Your task to perform on an android device: turn on data saver in the chrome app Image 0: 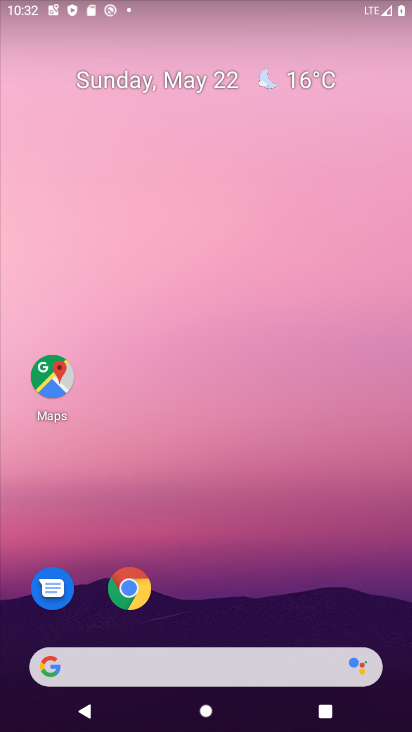
Step 0: click (141, 579)
Your task to perform on an android device: turn on data saver in the chrome app Image 1: 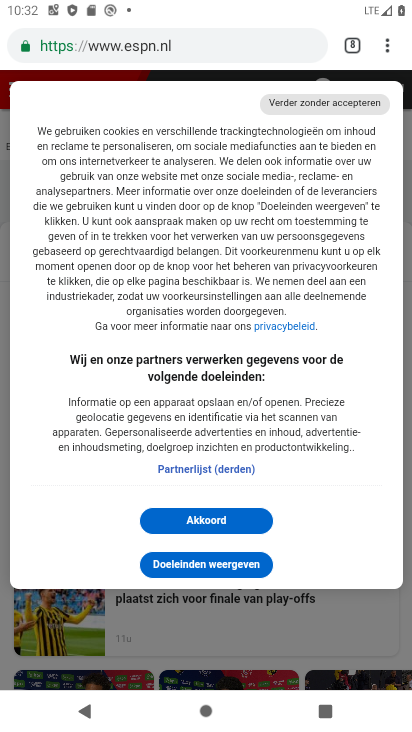
Step 1: click (382, 38)
Your task to perform on an android device: turn on data saver in the chrome app Image 2: 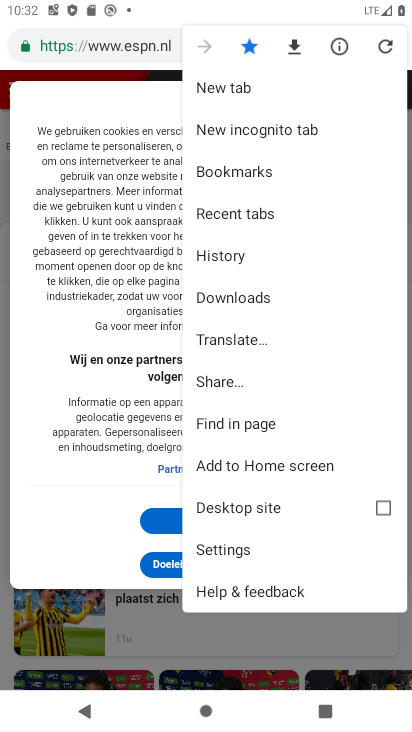
Step 2: click (388, 42)
Your task to perform on an android device: turn on data saver in the chrome app Image 3: 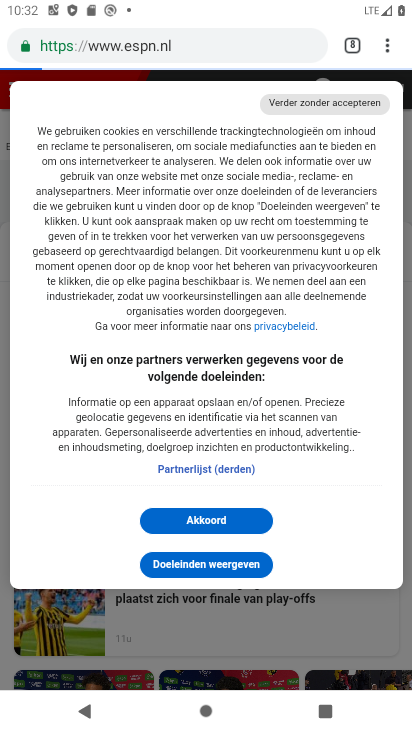
Step 3: click (388, 42)
Your task to perform on an android device: turn on data saver in the chrome app Image 4: 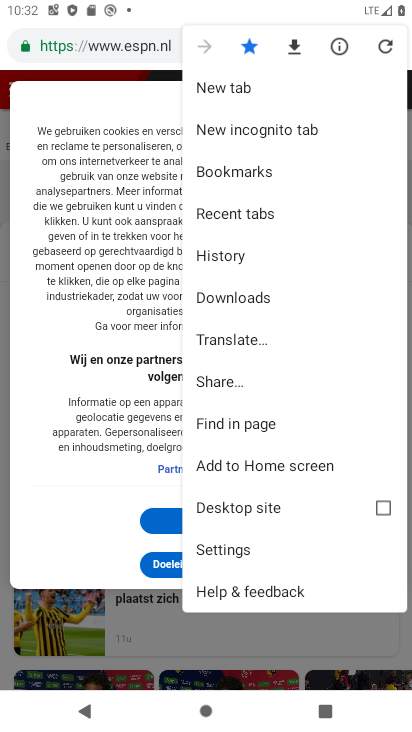
Step 4: click (250, 559)
Your task to perform on an android device: turn on data saver in the chrome app Image 5: 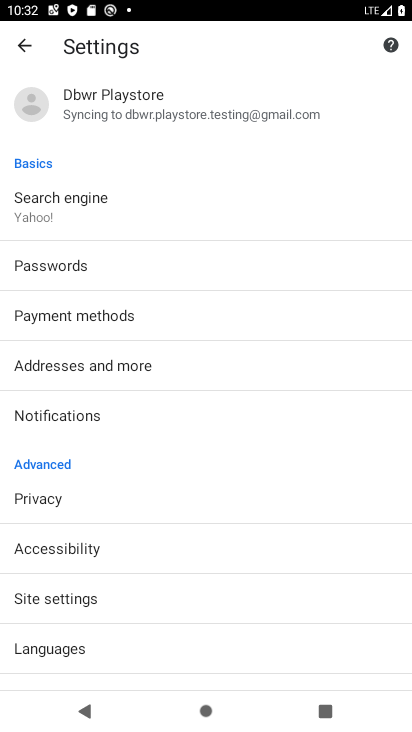
Step 5: click (88, 587)
Your task to perform on an android device: turn on data saver in the chrome app Image 6: 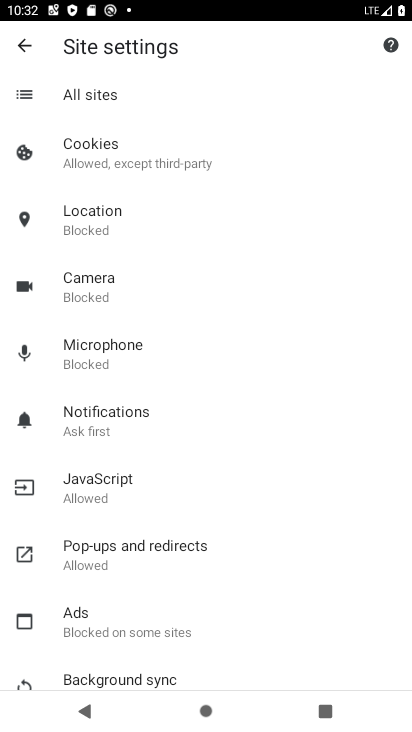
Step 6: click (26, 38)
Your task to perform on an android device: turn on data saver in the chrome app Image 7: 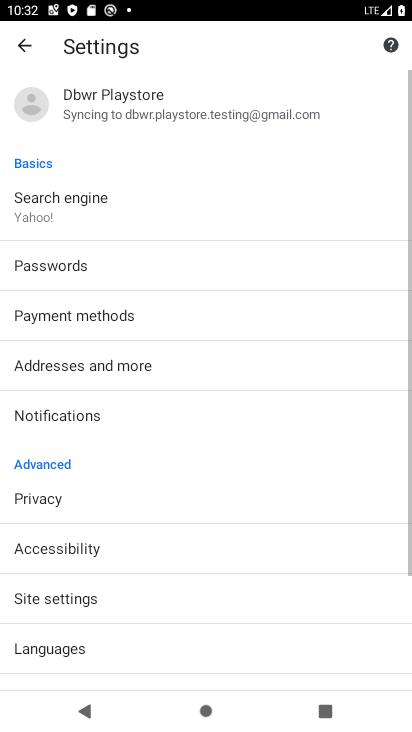
Step 7: drag from (147, 563) to (230, 268)
Your task to perform on an android device: turn on data saver in the chrome app Image 8: 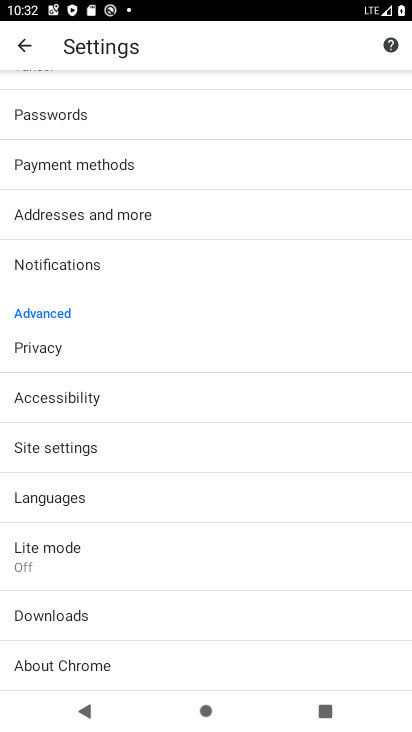
Step 8: click (83, 648)
Your task to perform on an android device: turn on data saver in the chrome app Image 9: 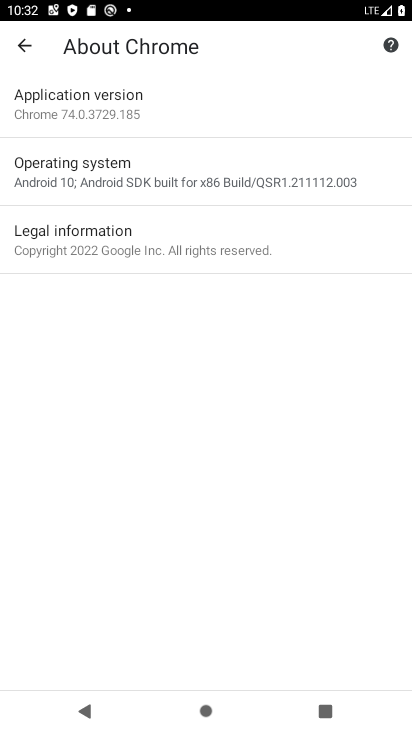
Step 9: click (30, 43)
Your task to perform on an android device: turn on data saver in the chrome app Image 10: 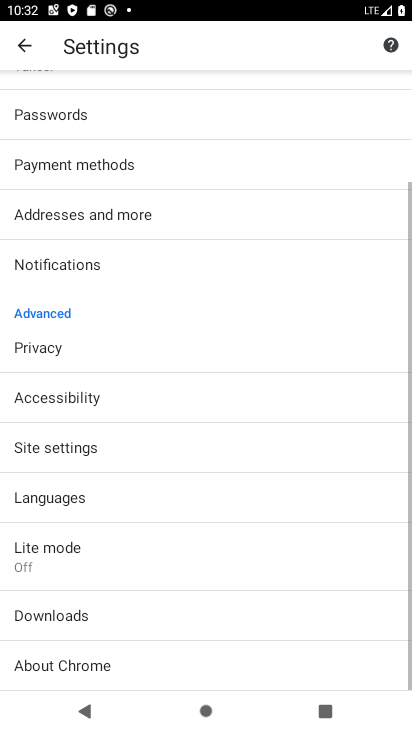
Step 10: click (106, 569)
Your task to perform on an android device: turn on data saver in the chrome app Image 11: 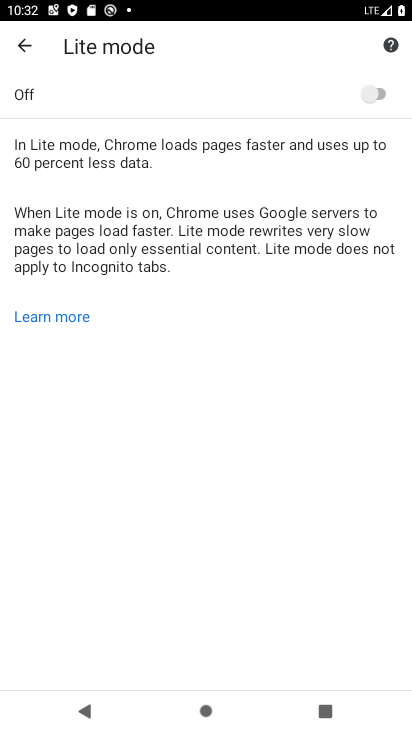
Step 11: click (386, 90)
Your task to perform on an android device: turn on data saver in the chrome app Image 12: 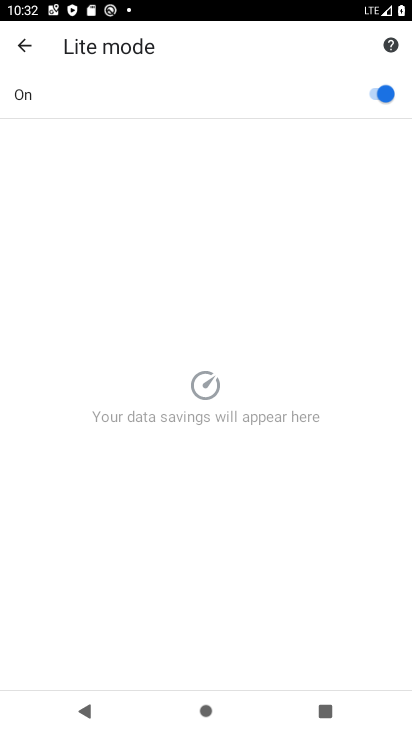
Step 12: task complete